Your task to perform on an android device: Open the map Image 0: 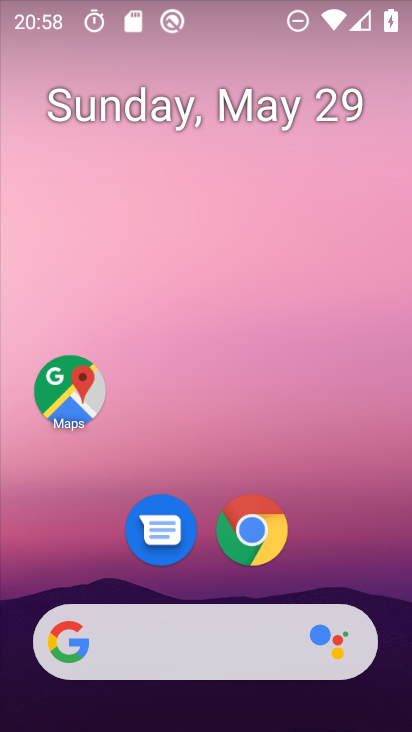
Step 0: press home button
Your task to perform on an android device: Open the map Image 1: 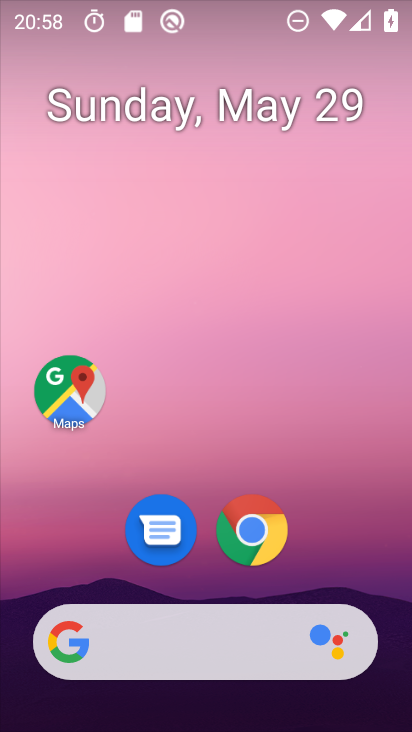
Step 1: drag from (248, 686) to (397, 113)
Your task to perform on an android device: Open the map Image 2: 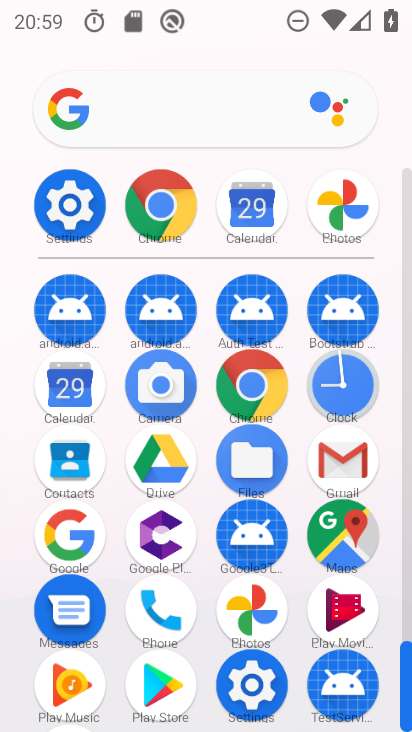
Step 2: click (327, 525)
Your task to perform on an android device: Open the map Image 3: 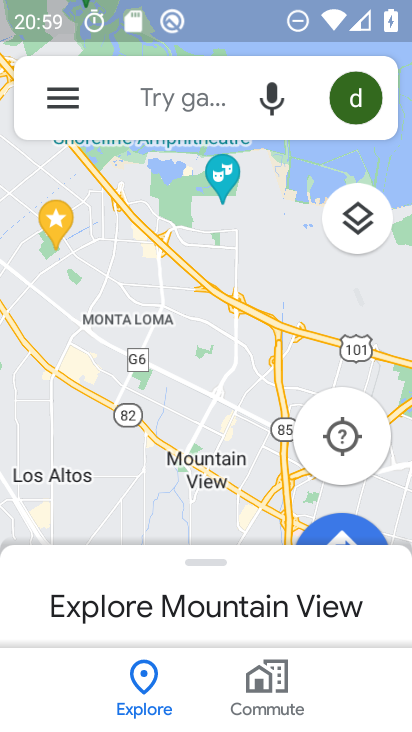
Step 3: click (50, 142)
Your task to perform on an android device: Open the map Image 4: 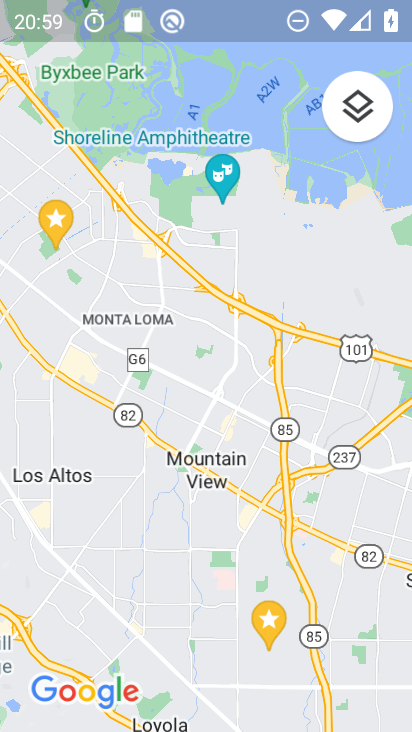
Step 4: click (138, 272)
Your task to perform on an android device: Open the map Image 5: 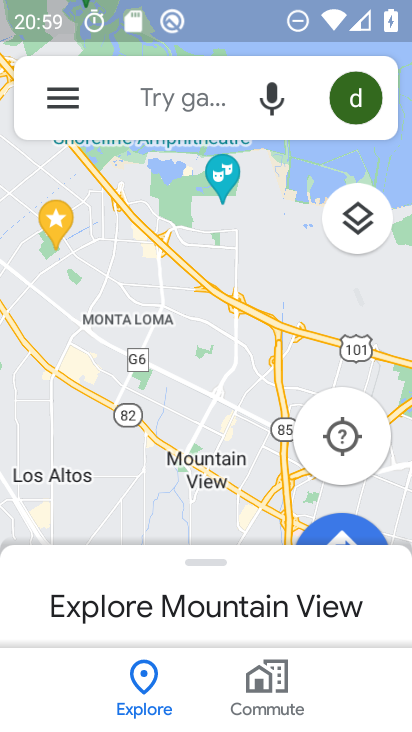
Step 5: task complete